Your task to perform on an android device: make emails show in primary in the gmail app Image 0: 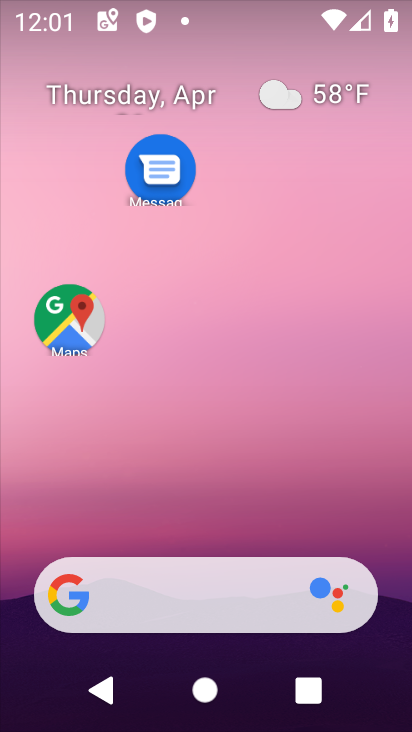
Step 0: drag from (258, 120) to (264, 78)
Your task to perform on an android device: make emails show in primary in the gmail app Image 1: 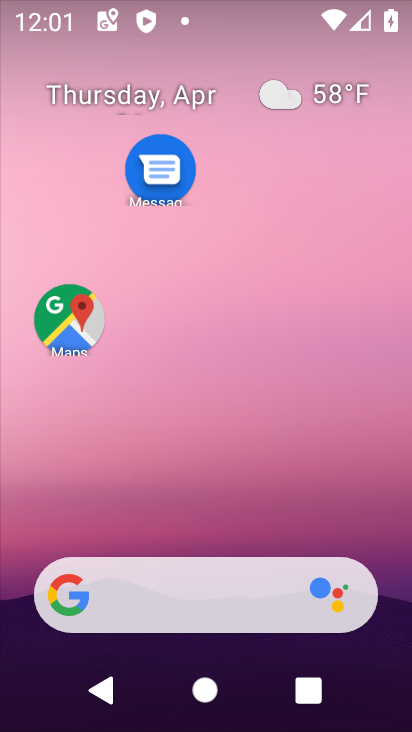
Step 1: drag from (199, 348) to (162, 18)
Your task to perform on an android device: make emails show in primary in the gmail app Image 2: 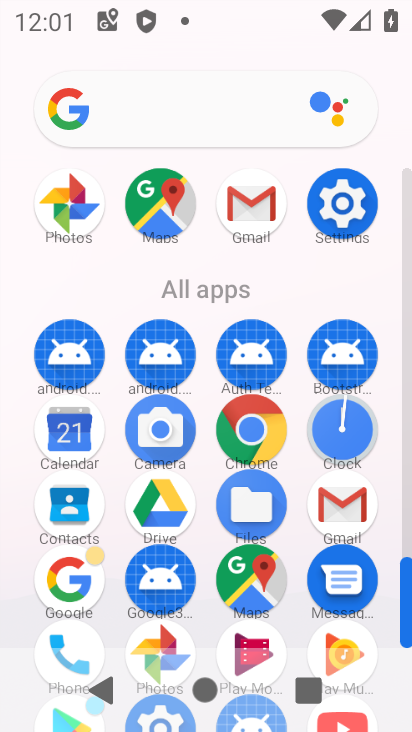
Step 2: drag from (225, 587) to (320, 103)
Your task to perform on an android device: make emails show in primary in the gmail app Image 3: 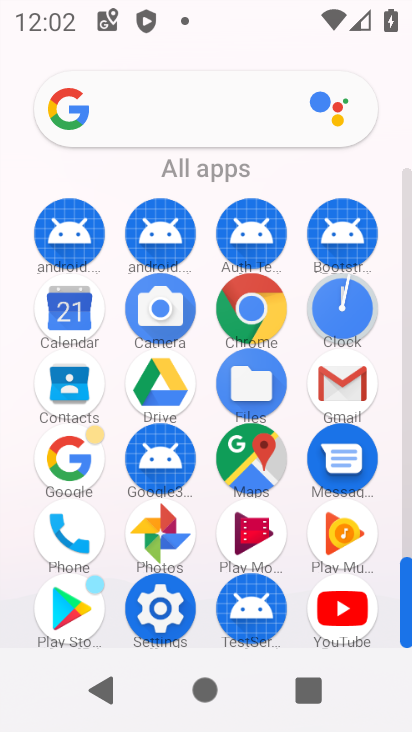
Step 3: click (350, 387)
Your task to perform on an android device: make emails show in primary in the gmail app Image 4: 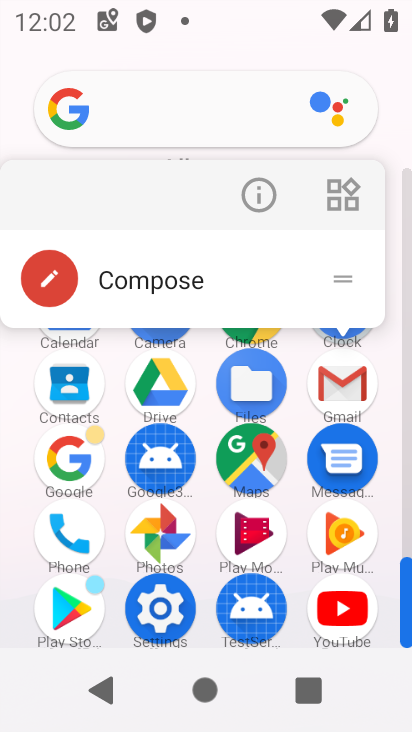
Step 4: click (261, 197)
Your task to perform on an android device: make emails show in primary in the gmail app Image 5: 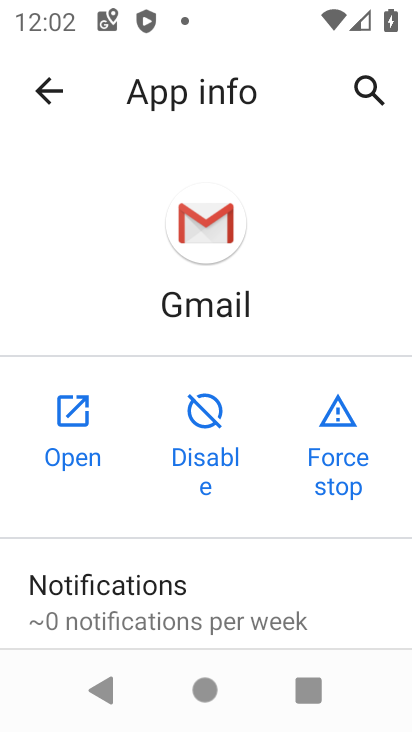
Step 5: click (80, 435)
Your task to perform on an android device: make emails show in primary in the gmail app Image 6: 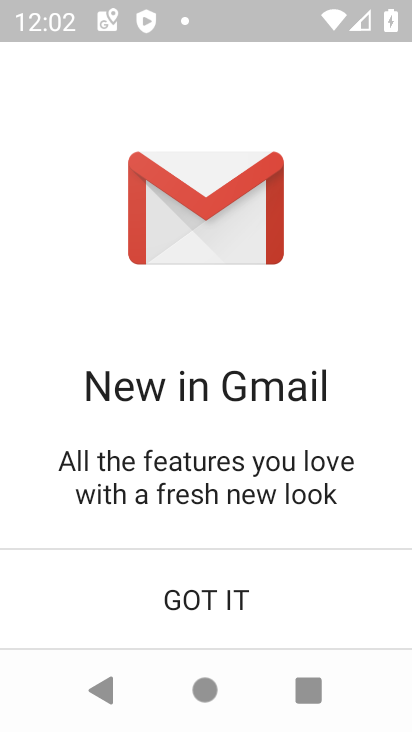
Step 6: click (192, 591)
Your task to perform on an android device: make emails show in primary in the gmail app Image 7: 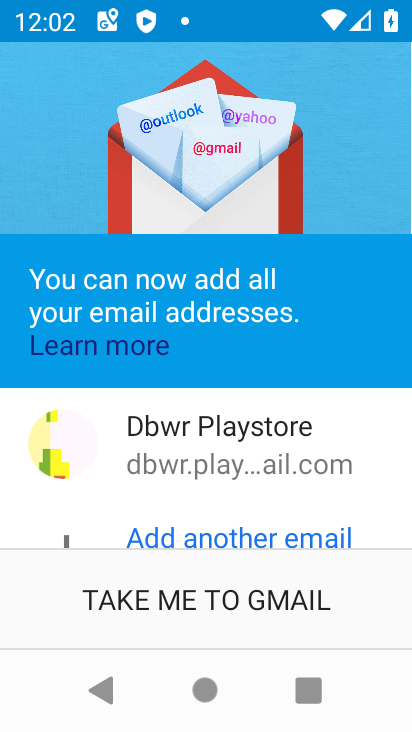
Step 7: drag from (165, 507) to (298, 19)
Your task to perform on an android device: make emails show in primary in the gmail app Image 8: 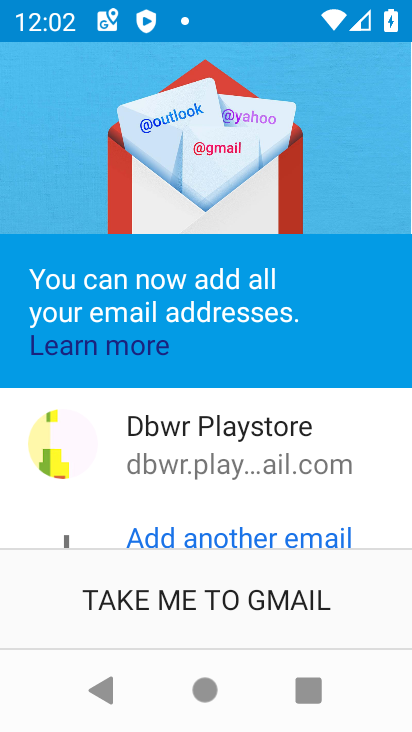
Step 8: drag from (188, 303) to (247, 44)
Your task to perform on an android device: make emails show in primary in the gmail app Image 9: 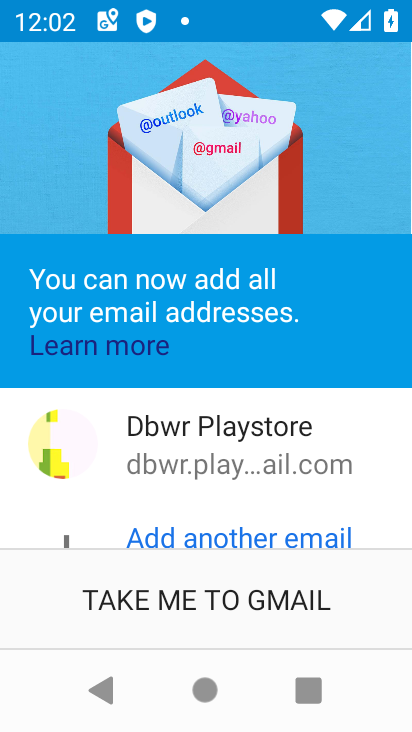
Step 9: drag from (177, 464) to (272, 42)
Your task to perform on an android device: make emails show in primary in the gmail app Image 10: 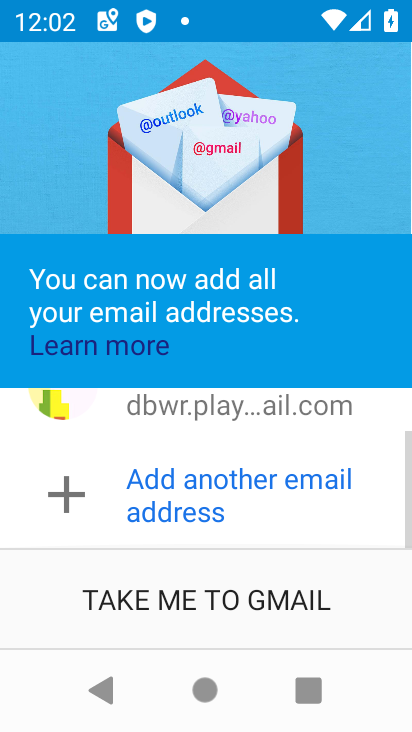
Step 10: drag from (254, 555) to (297, 241)
Your task to perform on an android device: make emails show in primary in the gmail app Image 11: 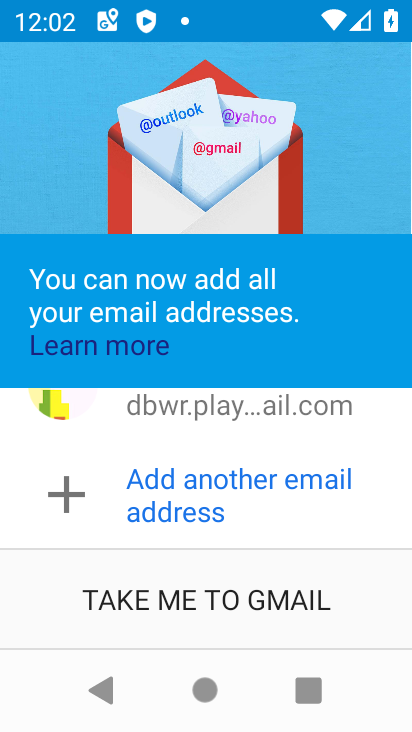
Step 11: click (194, 610)
Your task to perform on an android device: make emails show in primary in the gmail app Image 12: 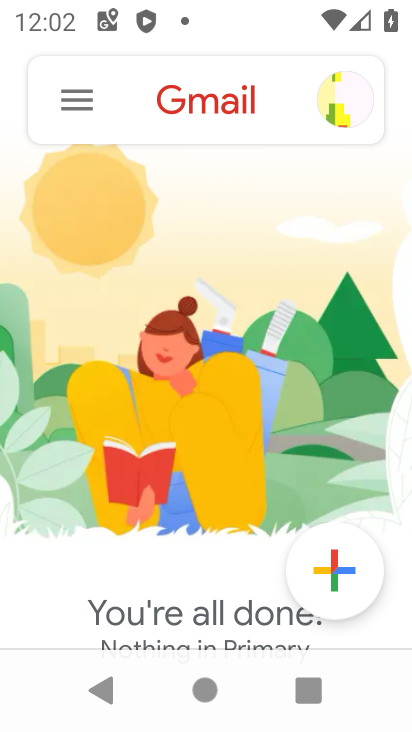
Step 12: drag from (252, 275) to (258, 8)
Your task to perform on an android device: make emails show in primary in the gmail app Image 13: 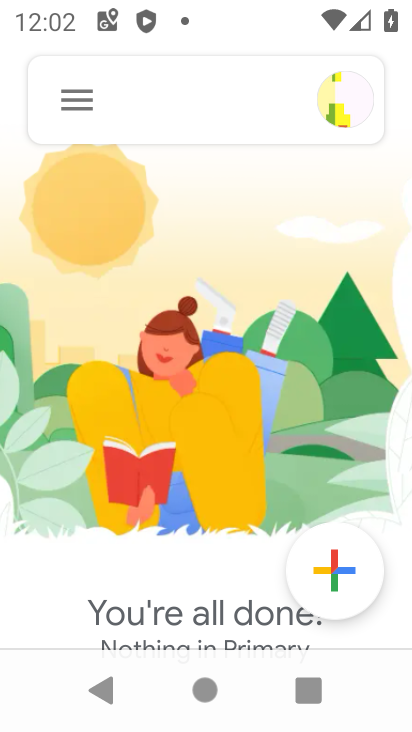
Step 13: drag from (200, 570) to (248, 94)
Your task to perform on an android device: make emails show in primary in the gmail app Image 14: 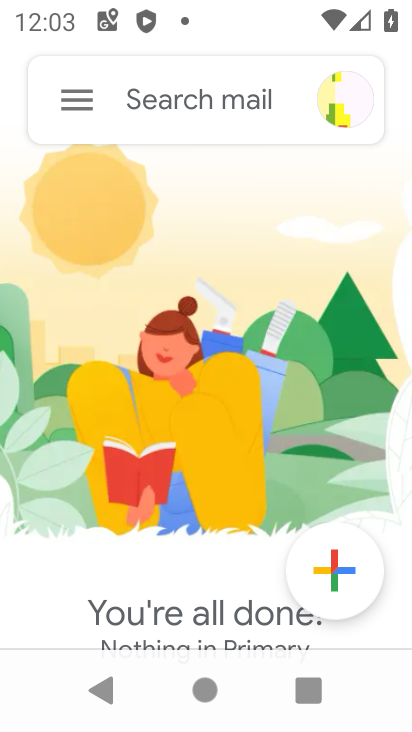
Step 14: drag from (195, 547) to (292, 6)
Your task to perform on an android device: make emails show in primary in the gmail app Image 15: 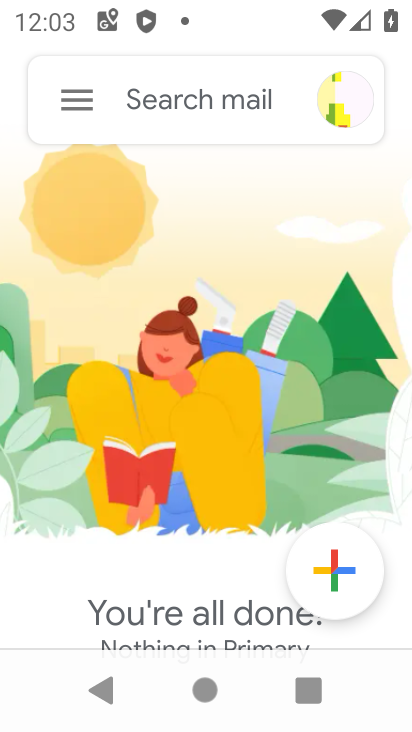
Step 15: click (62, 115)
Your task to perform on an android device: make emails show in primary in the gmail app Image 16: 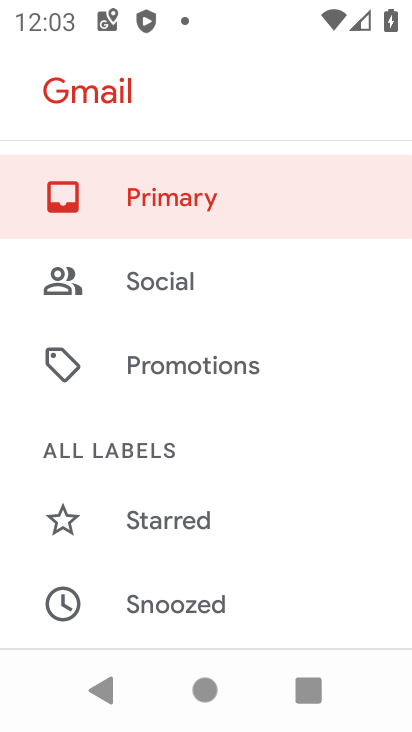
Step 16: click (265, 197)
Your task to perform on an android device: make emails show in primary in the gmail app Image 17: 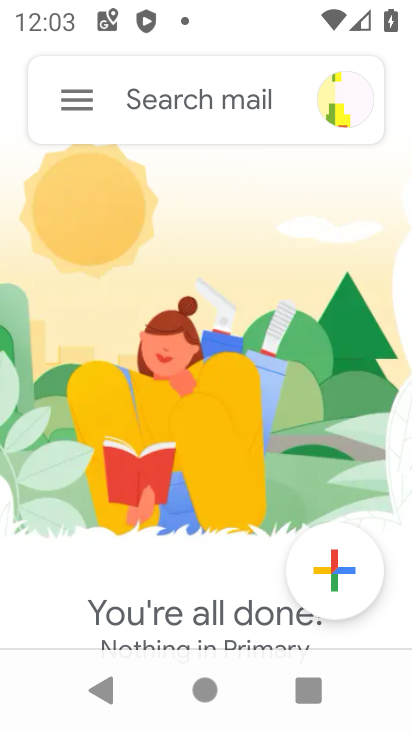
Step 17: task complete